Your task to perform on an android device: Search for sushi restaurants on Maps Image 0: 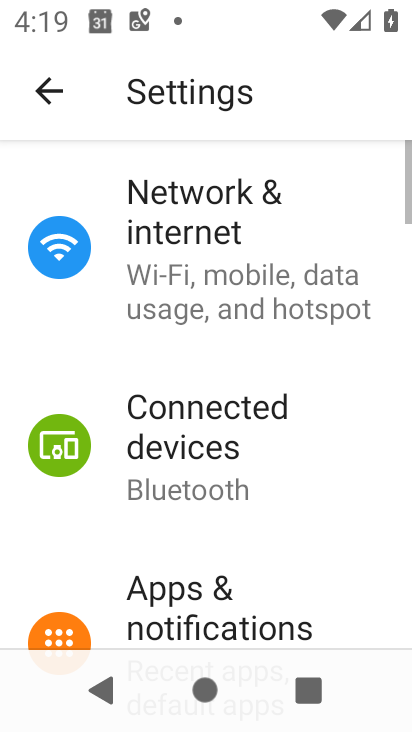
Step 0: press home button
Your task to perform on an android device: Search for sushi restaurants on Maps Image 1: 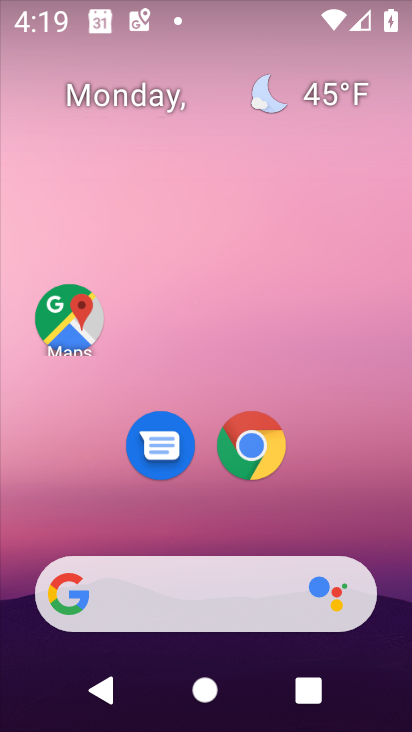
Step 1: click (66, 337)
Your task to perform on an android device: Search for sushi restaurants on Maps Image 2: 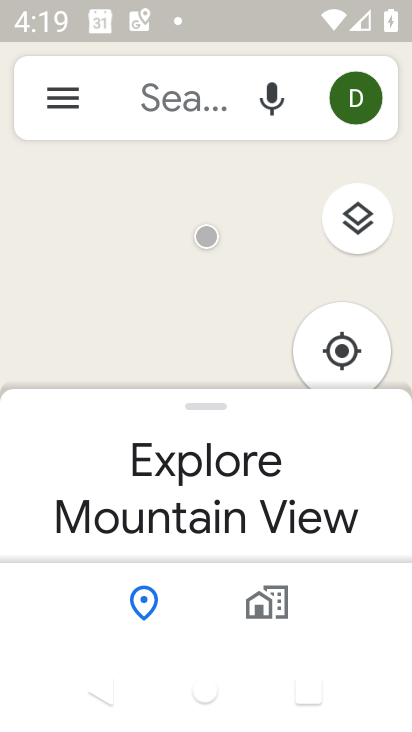
Step 2: click (180, 89)
Your task to perform on an android device: Search for sushi restaurants on Maps Image 3: 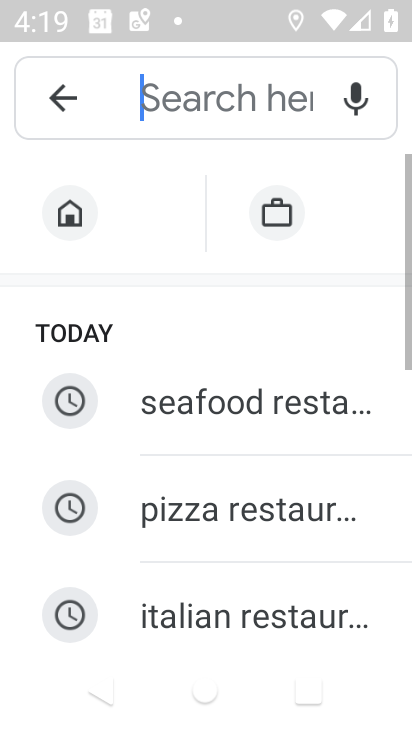
Step 3: click (148, 103)
Your task to perform on an android device: Search for sushi restaurants on Maps Image 4: 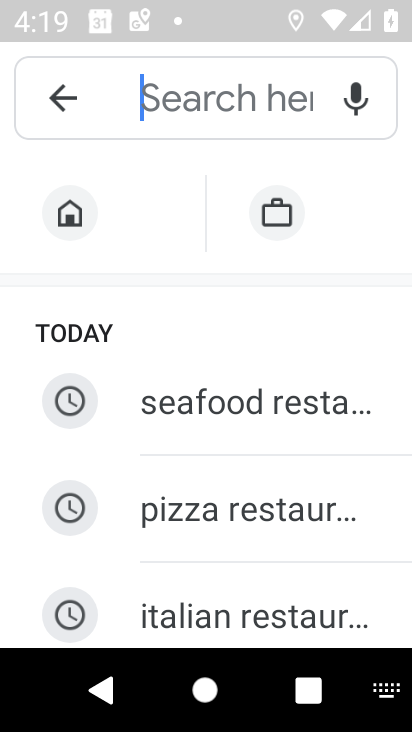
Step 4: type "sushi restaurants"
Your task to perform on an android device: Search for sushi restaurants on Maps Image 5: 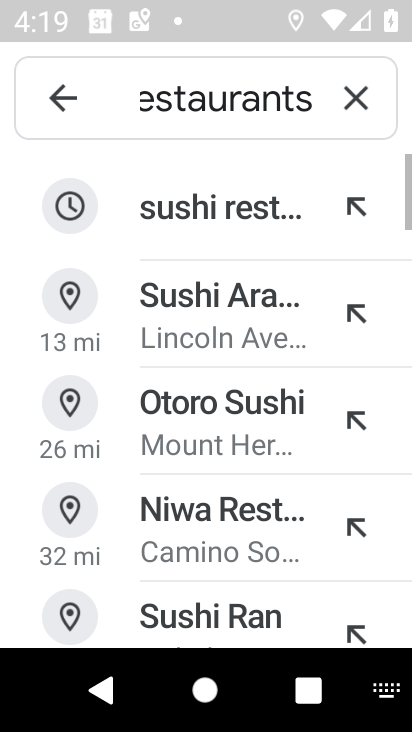
Step 5: click (234, 222)
Your task to perform on an android device: Search for sushi restaurants on Maps Image 6: 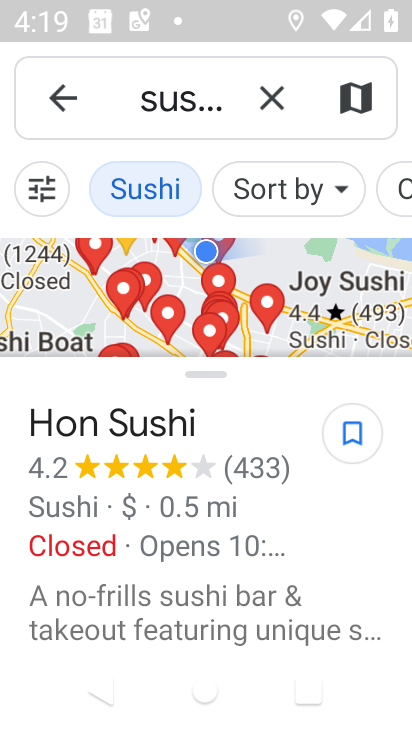
Step 6: task complete